Your task to perform on an android device: turn off wifi Image 0: 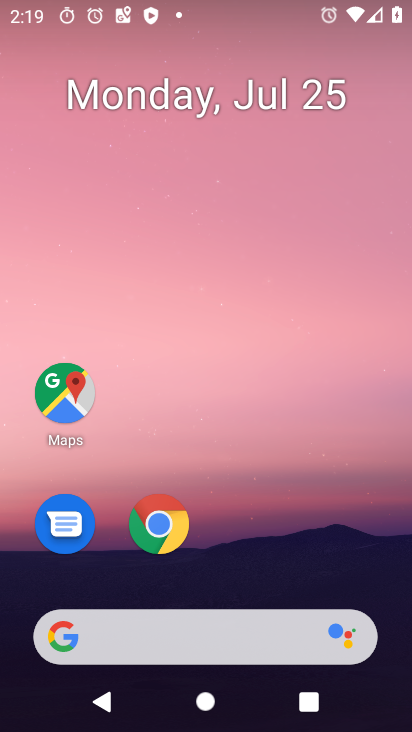
Step 0: press home button
Your task to perform on an android device: turn off wifi Image 1: 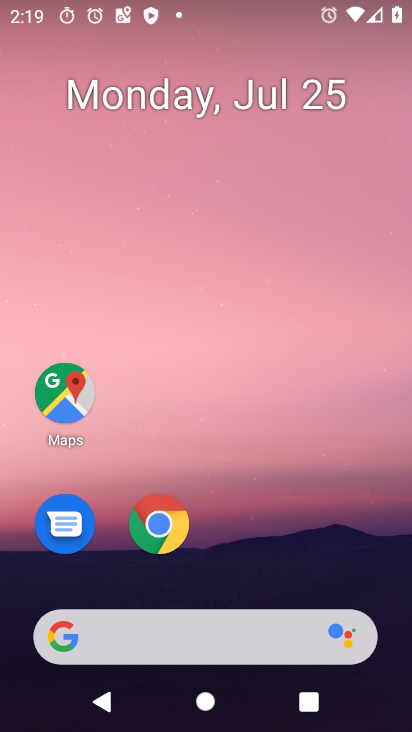
Step 1: drag from (224, 8) to (282, 631)
Your task to perform on an android device: turn off wifi Image 2: 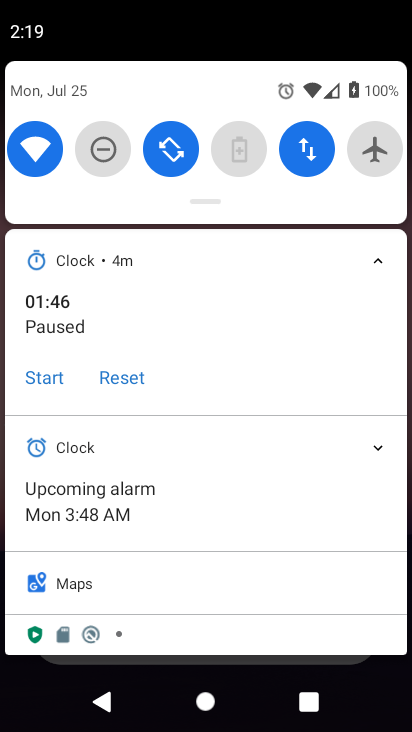
Step 2: click (37, 145)
Your task to perform on an android device: turn off wifi Image 3: 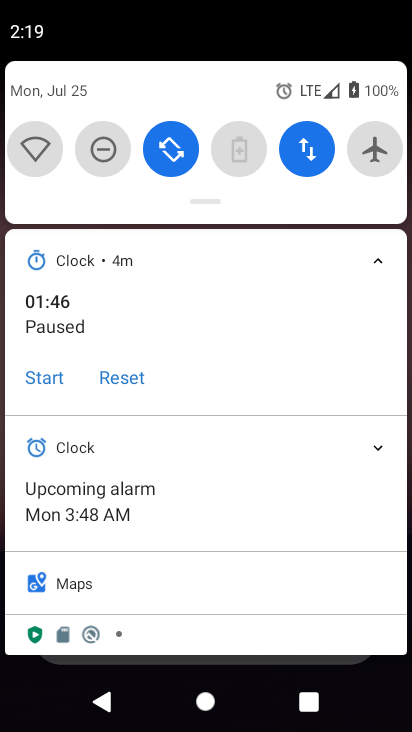
Step 3: task complete